Your task to perform on an android device: add a contact in the contacts app Image 0: 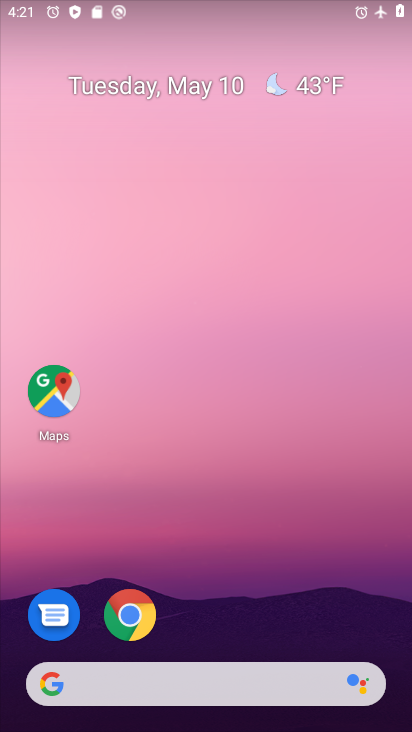
Step 0: drag from (257, 595) to (214, 23)
Your task to perform on an android device: add a contact in the contacts app Image 1: 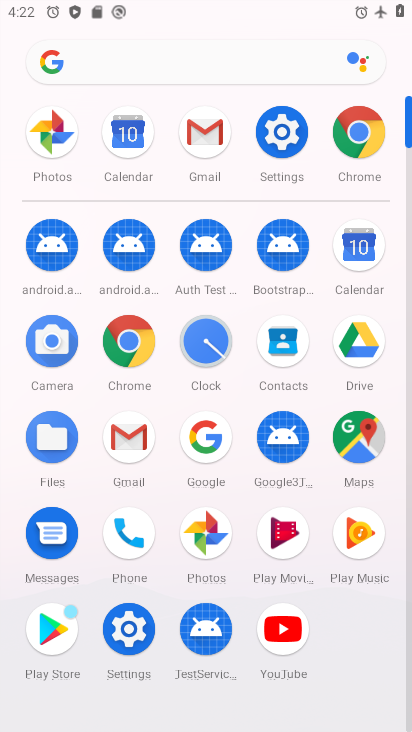
Step 1: click (286, 342)
Your task to perform on an android device: add a contact in the contacts app Image 2: 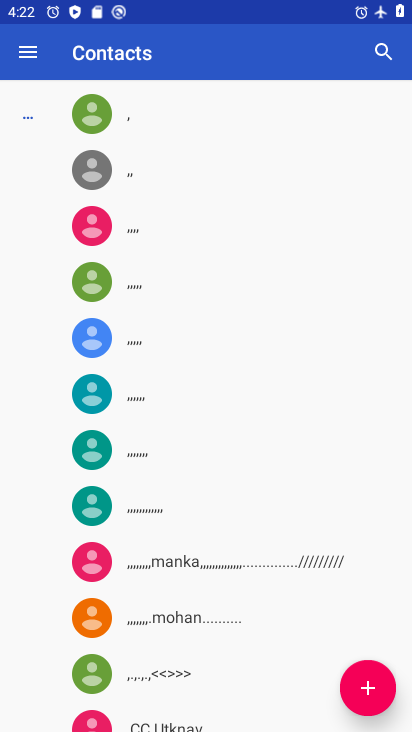
Step 2: task complete